Your task to perform on an android device: turn off location Image 0: 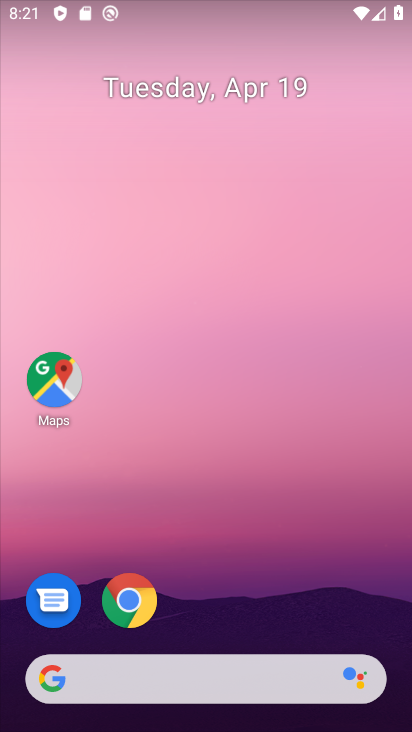
Step 0: drag from (364, 582) to (352, 50)
Your task to perform on an android device: turn off location Image 1: 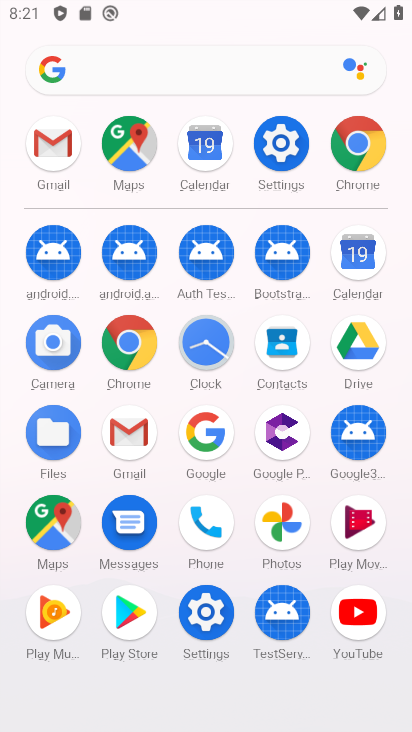
Step 1: click (291, 150)
Your task to perform on an android device: turn off location Image 2: 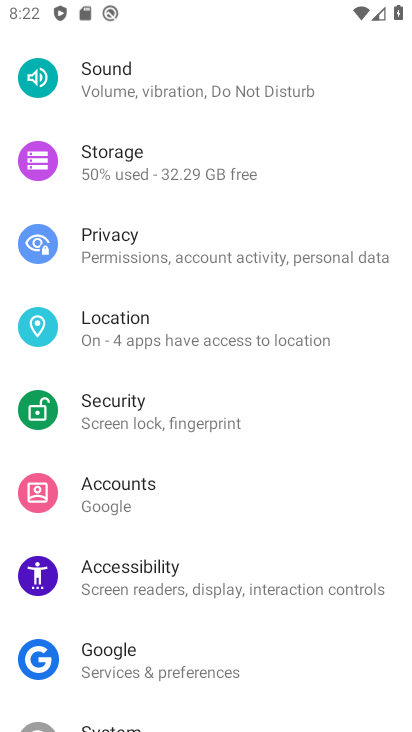
Step 2: drag from (368, 598) to (375, 343)
Your task to perform on an android device: turn off location Image 3: 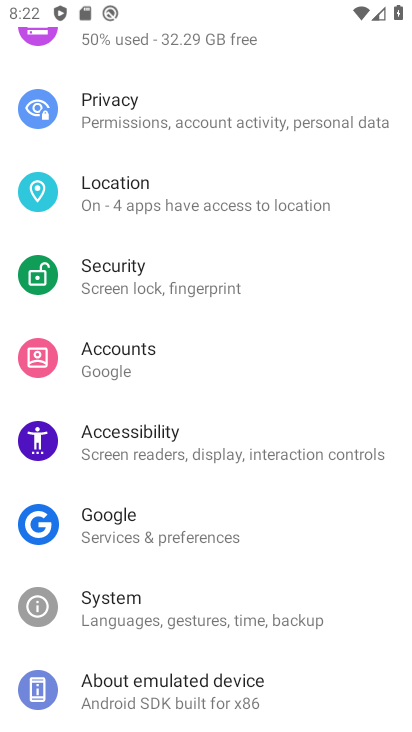
Step 3: click (209, 185)
Your task to perform on an android device: turn off location Image 4: 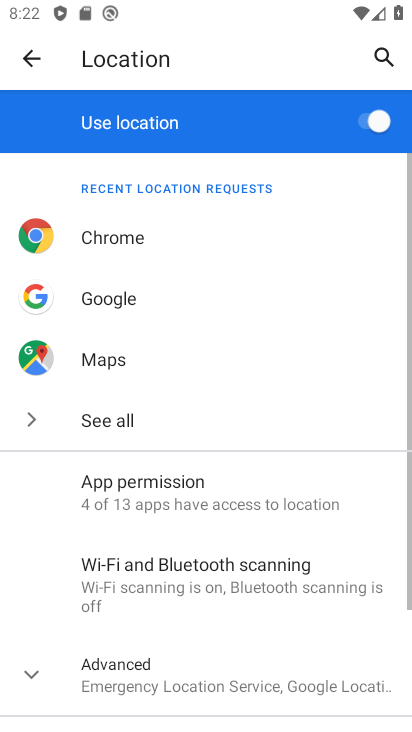
Step 4: click (372, 114)
Your task to perform on an android device: turn off location Image 5: 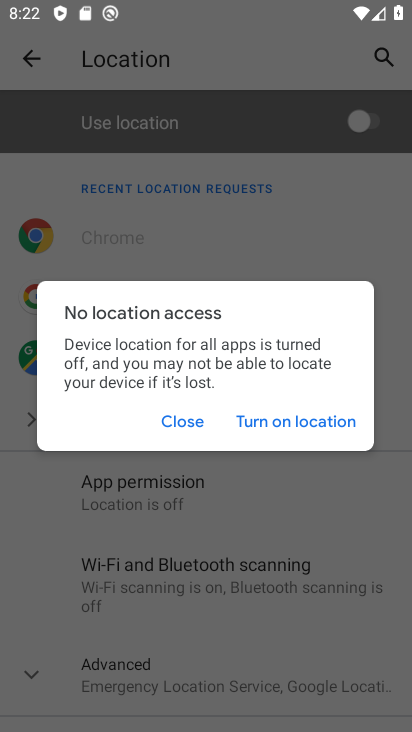
Step 5: task complete